Your task to perform on an android device: turn on sleep mode Image 0: 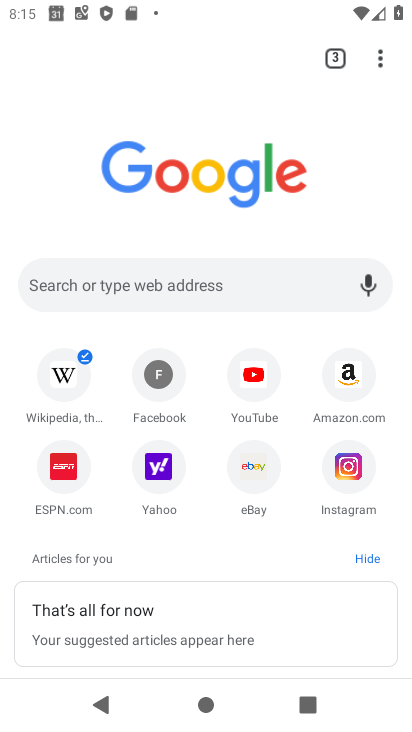
Step 0: press home button
Your task to perform on an android device: turn on sleep mode Image 1: 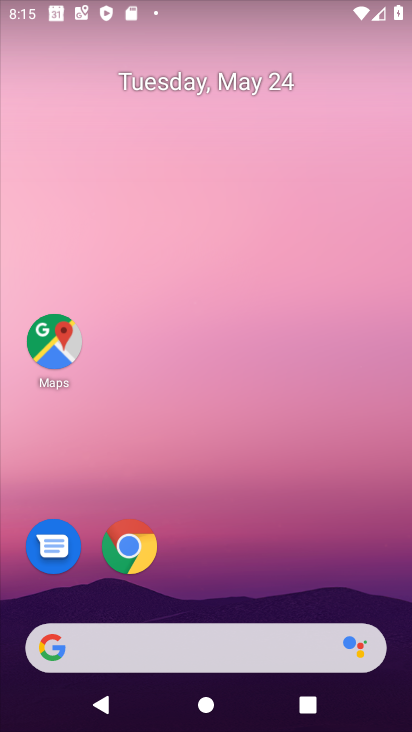
Step 1: drag from (235, 507) to (215, 6)
Your task to perform on an android device: turn on sleep mode Image 2: 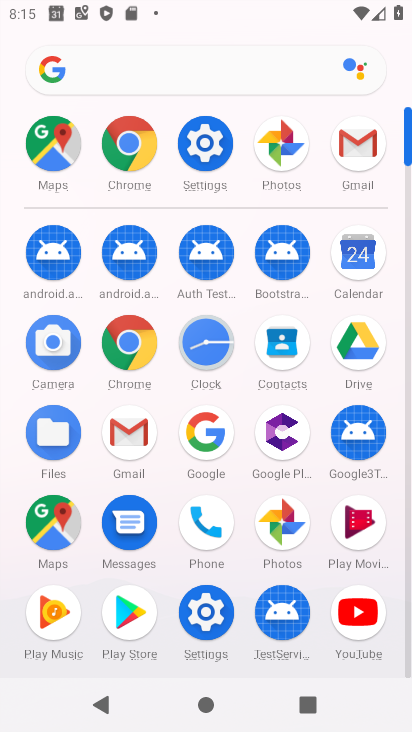
Step 2: click (206, 144)
Your task to perform on an android device: turn on sleep mode Image 3: 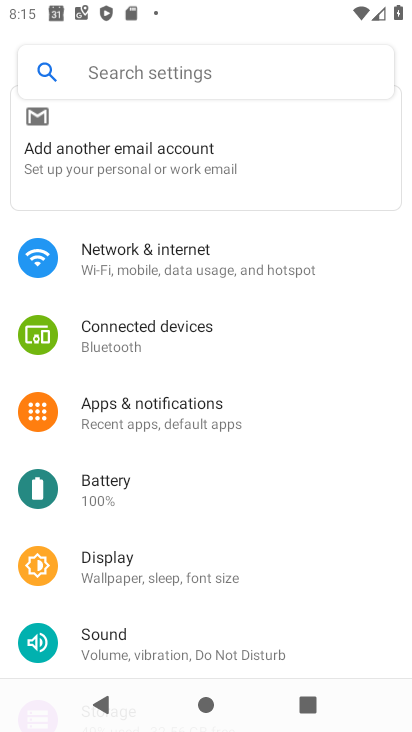
Step 3: click (181, 555)
Your task to perform on an android device: turn on sleep mode Image 4: 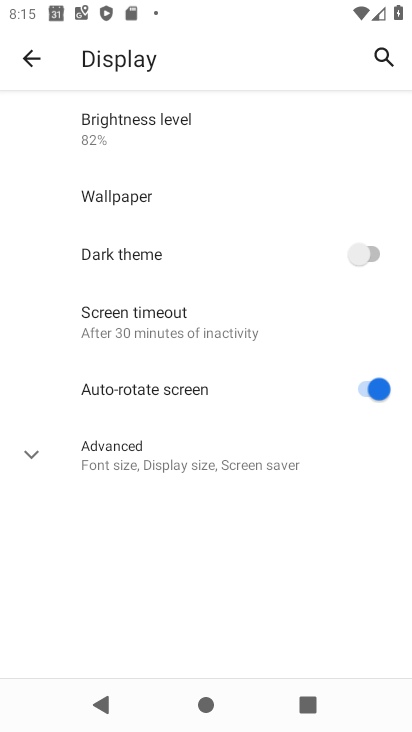
Step 4: click (32, 455)
Your task to perform on an android device: turn on sleep mode Image 5: 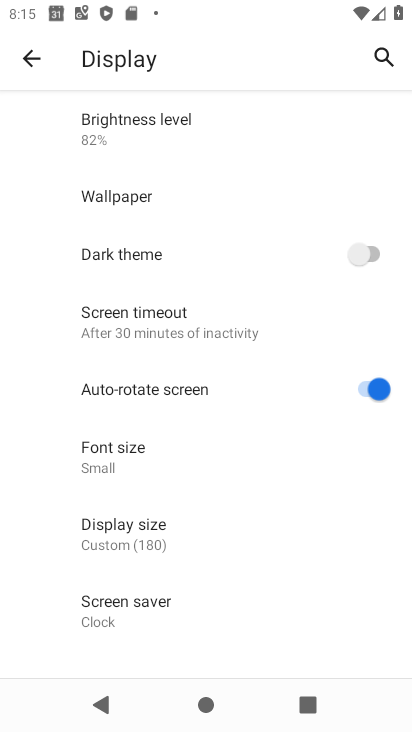
Step 5: task complete